Your task to perform on an android device: Open internet settings Image 0: 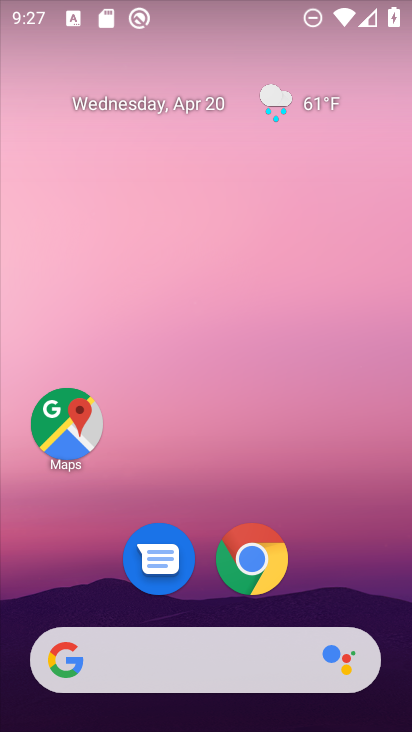
Step 0: drag from (363, 608) to (270, 181)
Your task to perform on an android device: Open internet settings Image 1: 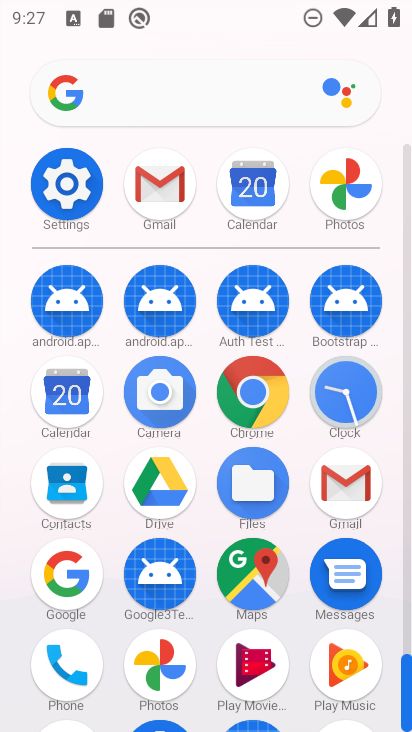
Step 1: drag from (409, 638) to (401, 558)
Your task to perform on an android device: Open internet settings Image 2: 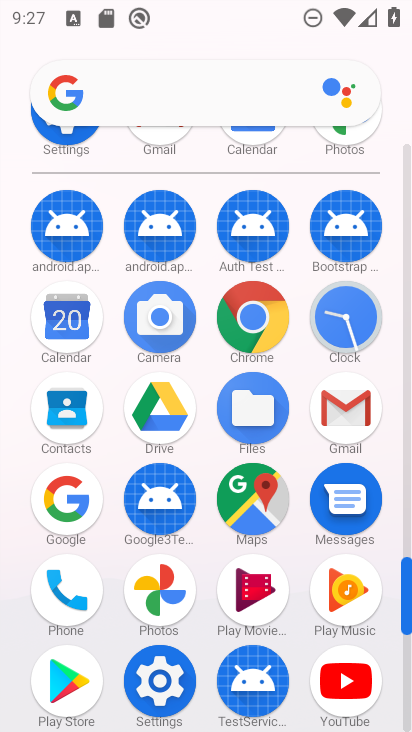
Step 2: click (154, 680)
Your task to perform on an android device: Open internet settings Image 3: 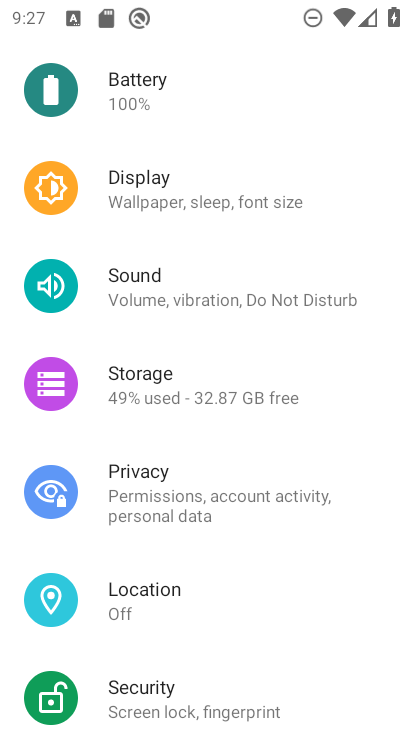
Step 3: drag from (286, 331) to (267, 725)
Your task to perform on an android device: Open internet settings Image 4: 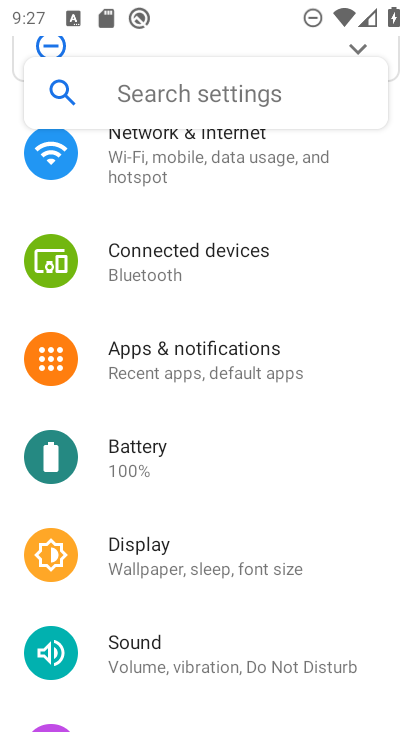
Step 4: drag from (315, 438) to (303, 581)
Your task to perform on an android device: Open internet settings Image 5: 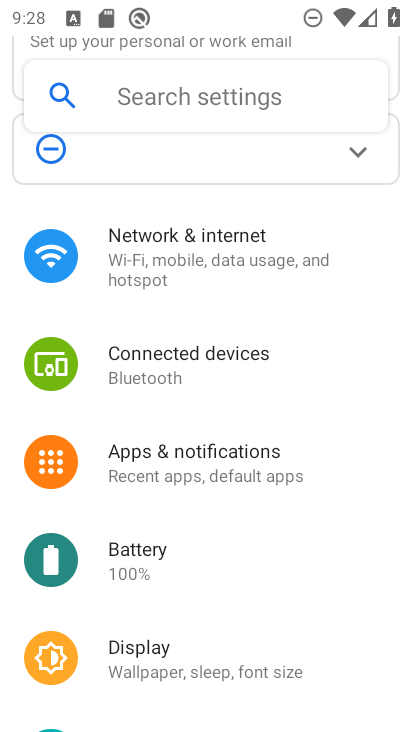
Step 5: click (178, 259)
Your task to perform on an android device: Open internet settings Image 6: 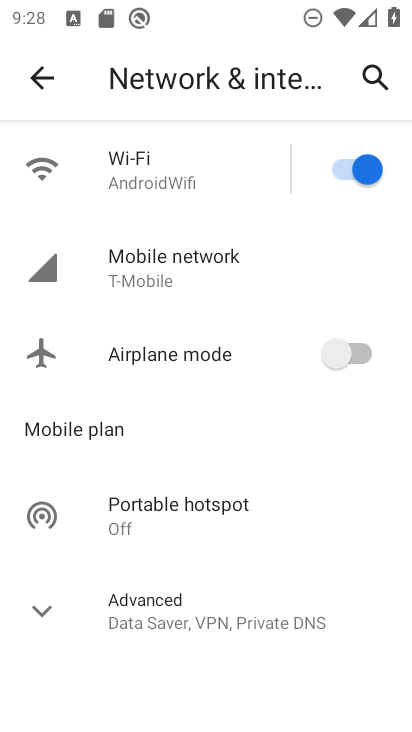
Step 6: click (173, 280)
Your task to perform on an android device: Open internet settings Image 7: 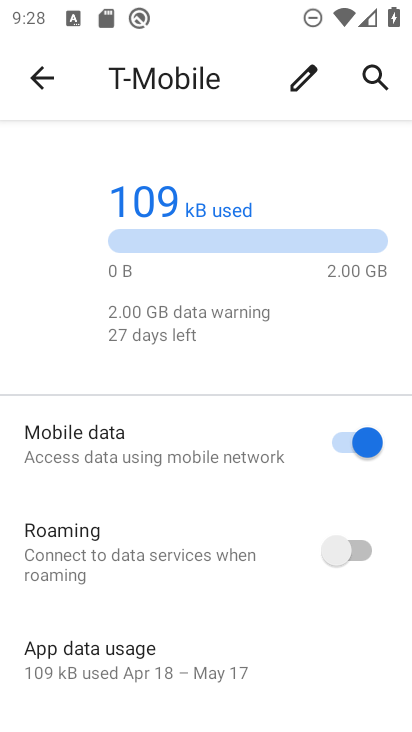
Step 7: task complete